Your task to perform on an android device: read, delete, or share a saved page in the chrome app Image 0: 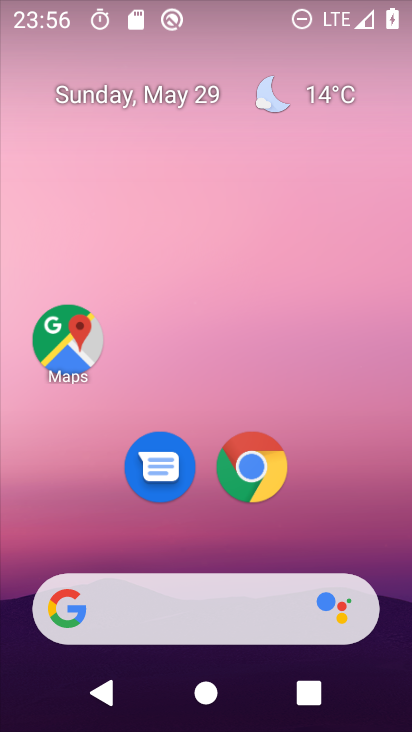
Step 0: click (254, 488)
Your task to perform on an android device: read, delete, or share a saved page in the chrome app Image 1: 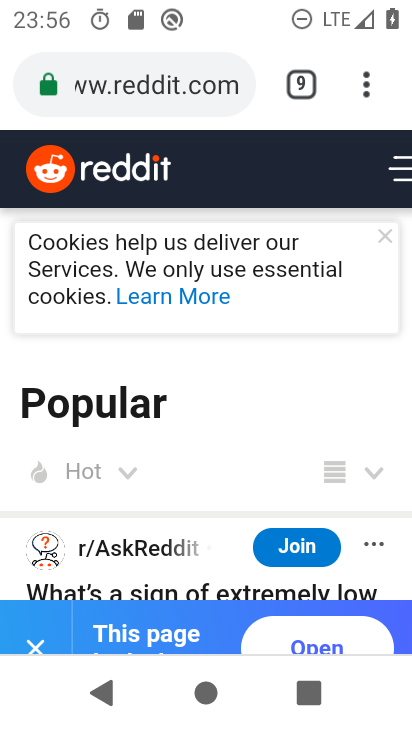
Step 1: click (364, 93)
Your task to perform on an android device: read, delete, or share a saved page in the chrome app Image 2: 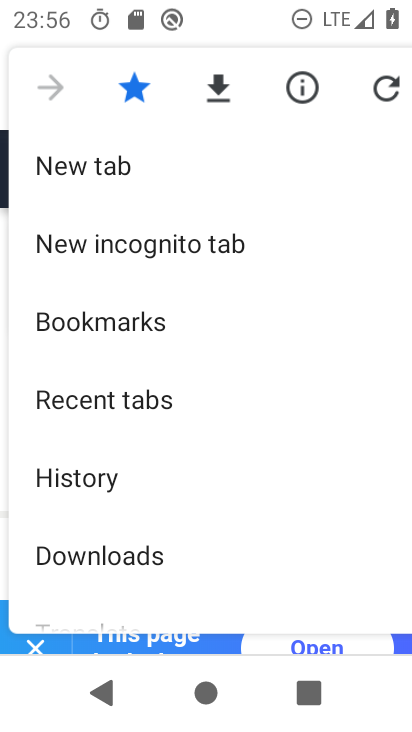
Step 2: click (91, 552)
Your task to perform on an android device: read, delete, or share a saved page in the chrome app Image 3: 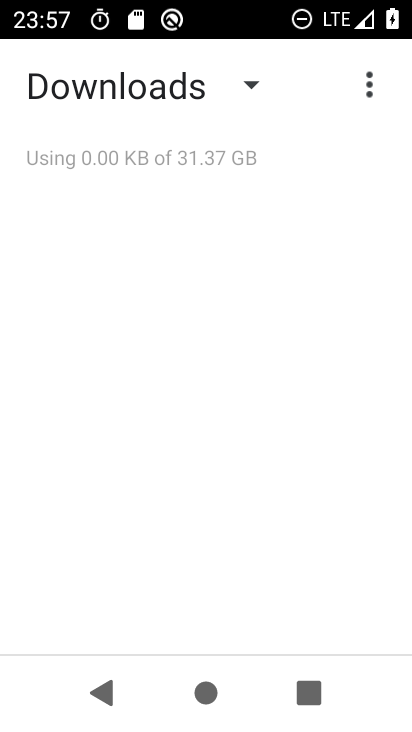
Step 3: click (252, 77)
Your task to perform on an android device: read, delete, or share a saved page in the chrome app Image 4: 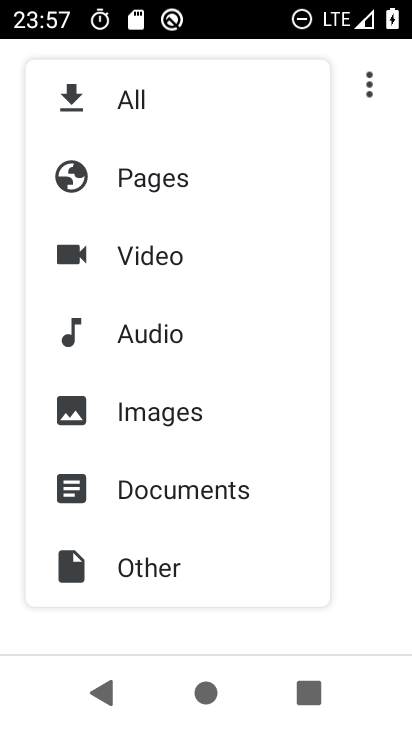
Step 4: click (144, 194)
Your task to perform on an android device: read, delete, or share a saved page in the chrome app Image 5: 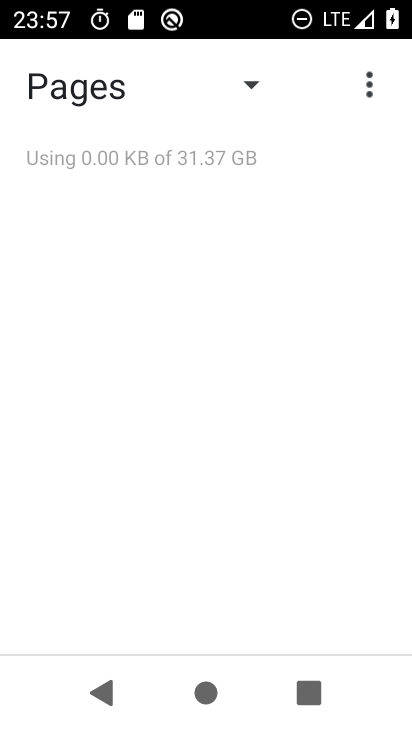
Step 5: task complete